Your task to perform on an android device: turn on improve location accuracy Image 0: 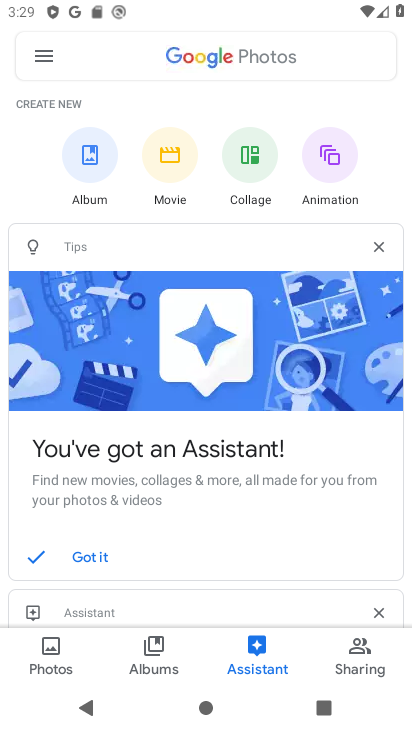
Step 0: press home button
Your task to perform on an android device: turn on improve location accuracy Image 1: 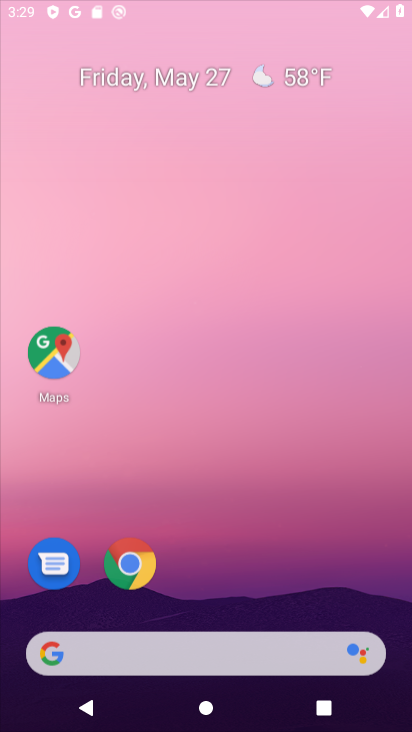
Step 1: drag from (215, 481) to (217, 30)
Your task to perform on an android device: turn on improve location accuracy Image 2: 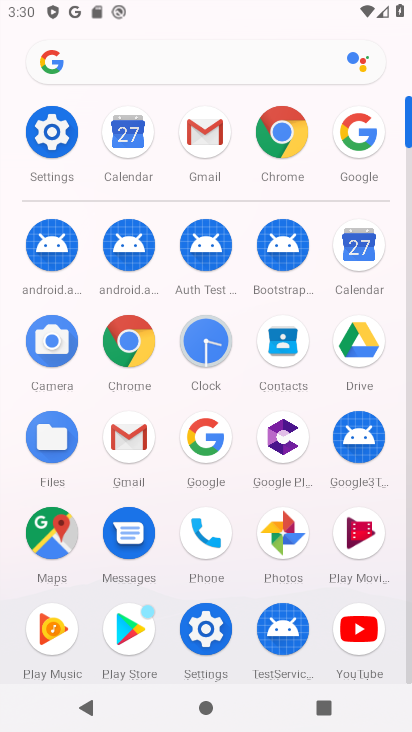
Step 2: click (51, 126)
Your task to perform on an android device: turn on improve location accuracy Image 3: 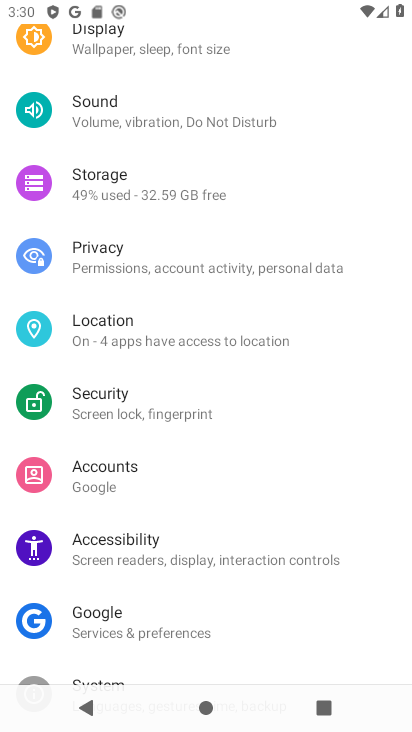
Step 3: click (139, 324)
Your task to perform on an android device: turn on improve location accuracy Image 4: 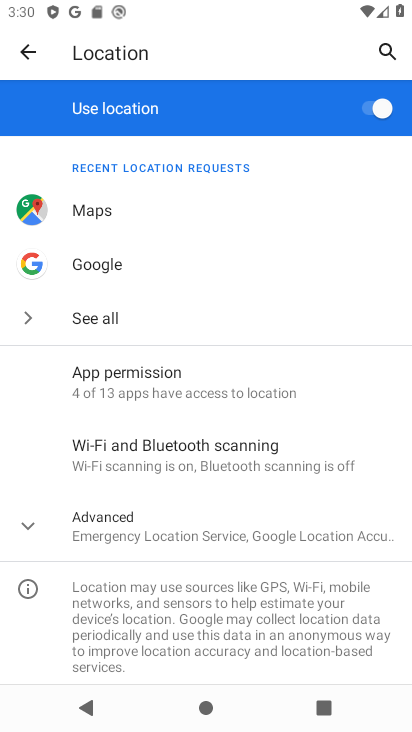
Step 4: click (25, 520)
Your task to perform on an android device: turn on improve location accuracy Image 5: 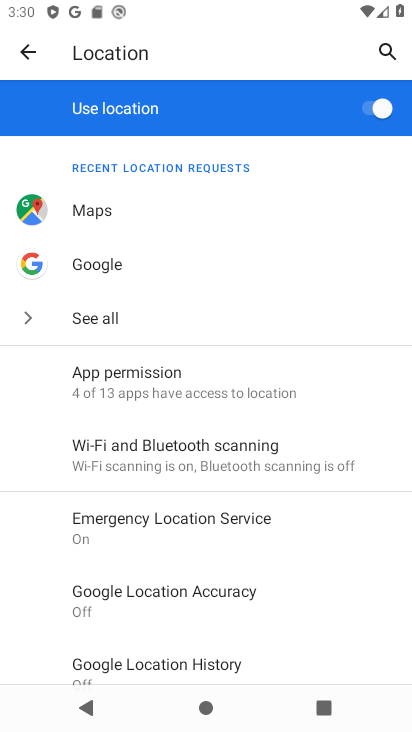
Step 5: click (107, 604)
Your task to perform on an android device: turn on improve location accuracy Image 6: 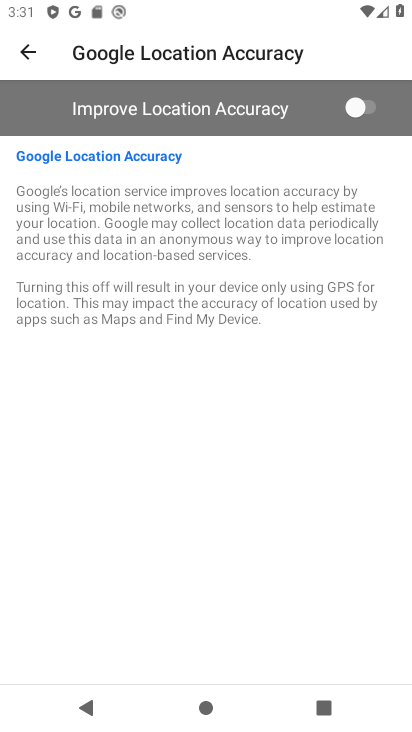
Step 6: click (366, 106)
Your task to perform on an android device: turn on improve location accuracy Image 7: 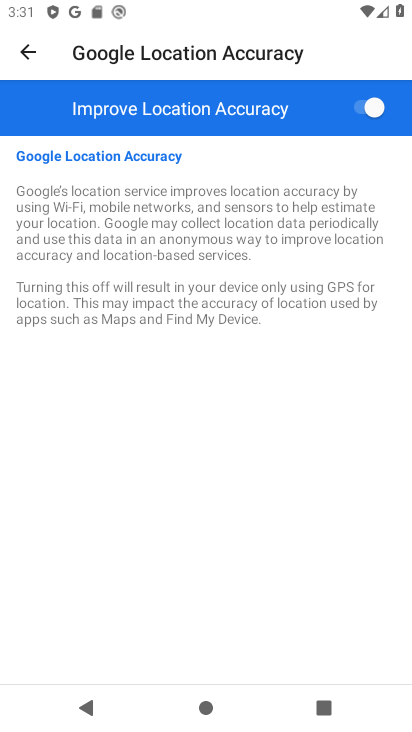
Step 7: task complete